Your task to perform on an android device: manage bookmarks in the chrome app Image 0: 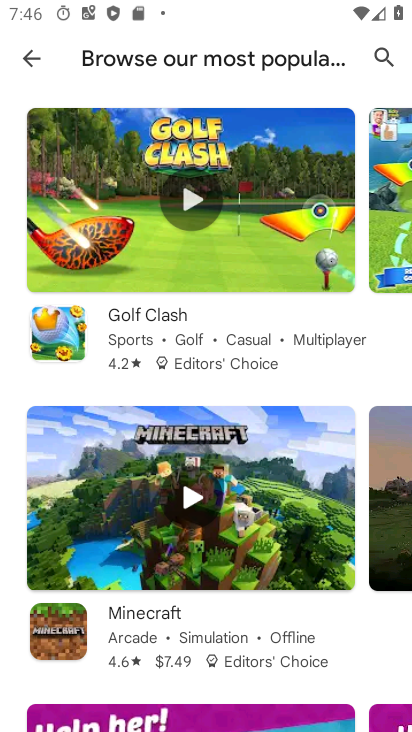
Step 0: press home button
Your task to perform on an android device: manage bookmarks in the chrome app Image 1: 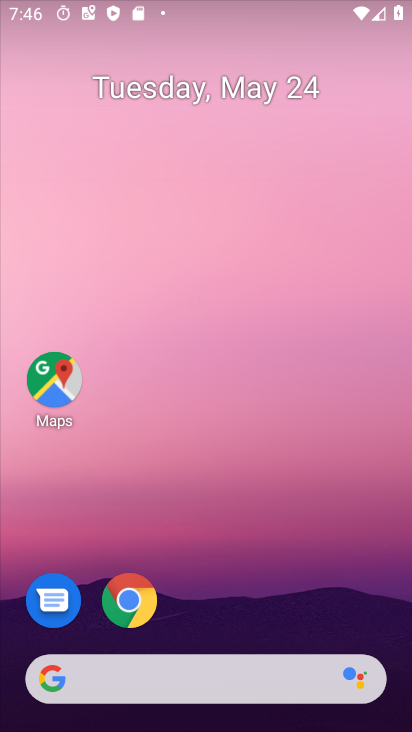
Step 1: drag from (220, 562) to (300, 47)
Your task to perform on an android device: manage bookmarks in the chrome app Image 2: 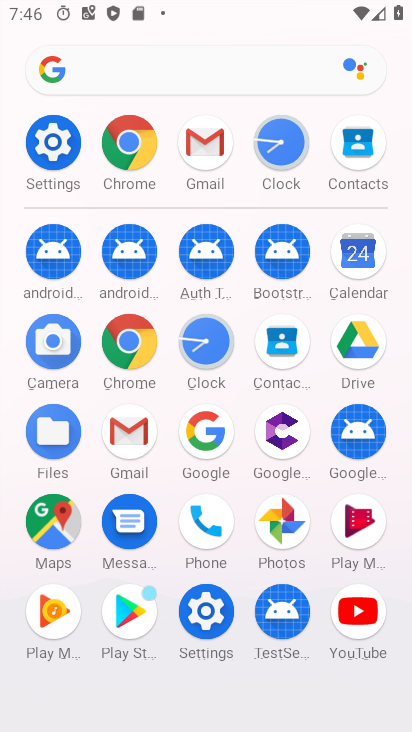
Step 2: click (133, 157)
Your task to perform on an android device: manage bookmarks in the chrome app Image 3: 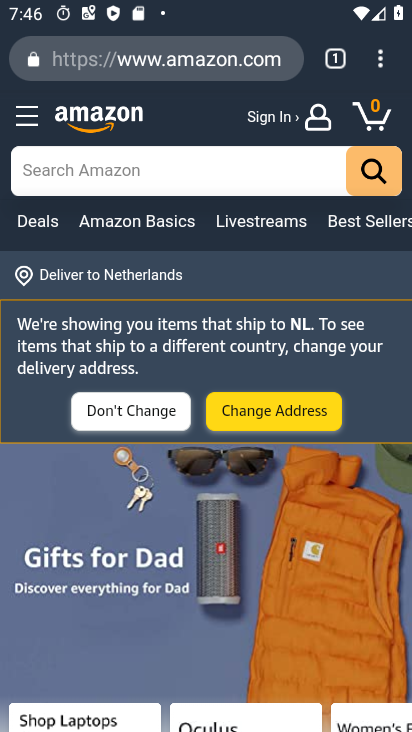
Step 3: drag from (377, 57) to (225, 211)
Your task to perform on an android device: manage bookmarks in the chrome app Image 4: 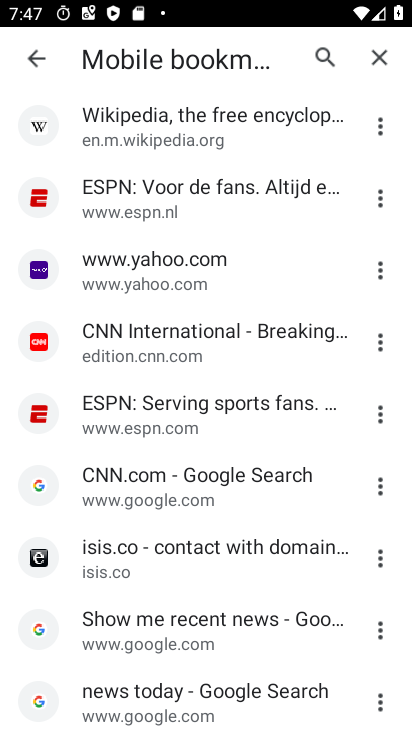
Step 4: click (372, 195)
Your task to perform on an android device: manage bookmarks in the chrome app Image 5: 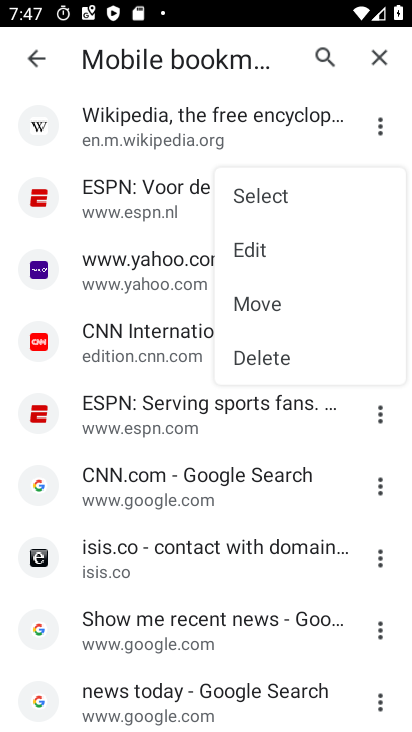
Step 5: click (253, 363)
Your task to perform on an android device: manage bookmarks in the chrome app Image 6: 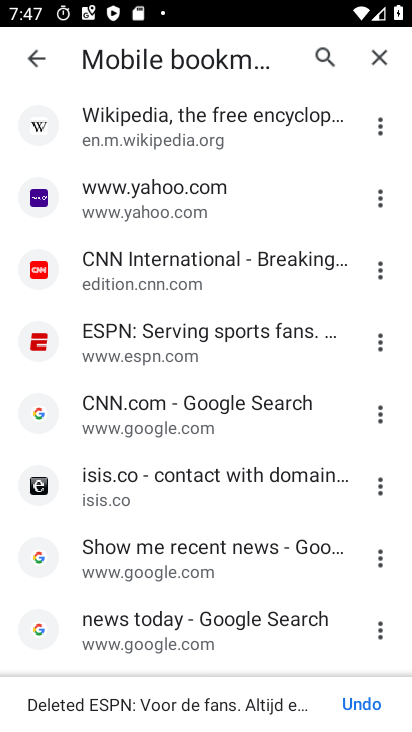
Step 6: task complete